Your task to perform on an android device: See recent photos Image 0: 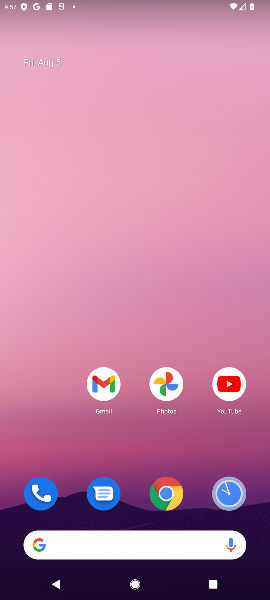
Step 0: drag from (137, 470) to (131, 22)
Your task to perform on an android device: See recent photos Image 1: 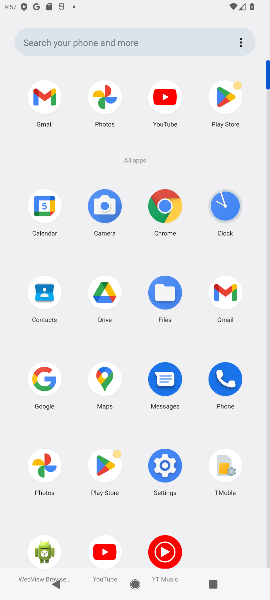
Step 1: click (41, 456)
Your task to perform on an android device: See recent photos Image 2: 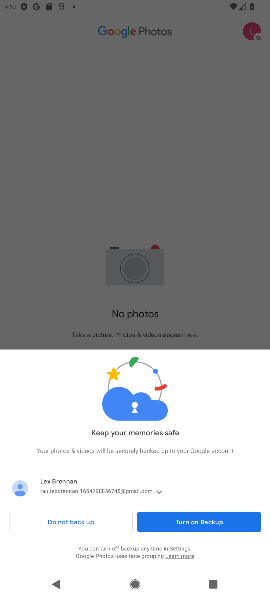
Step 2: click (196, 518)
Your task to perform on an android device: See recent photos Image 3: 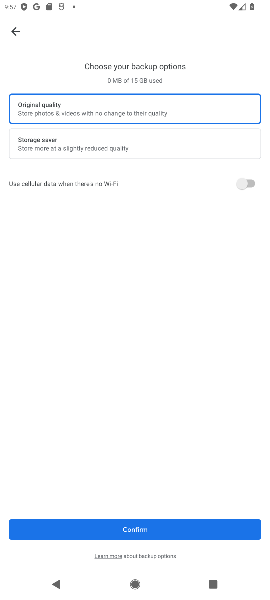
Step 3: click (152, 523)
Your task to perform on an android device: See recent photos Image 4: 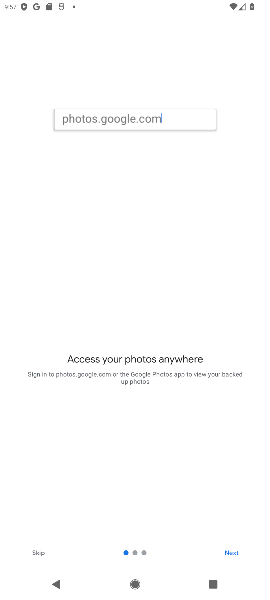
Step 4: click (38, 552)
Your task to perform on an android device: See recent photos Image 5: 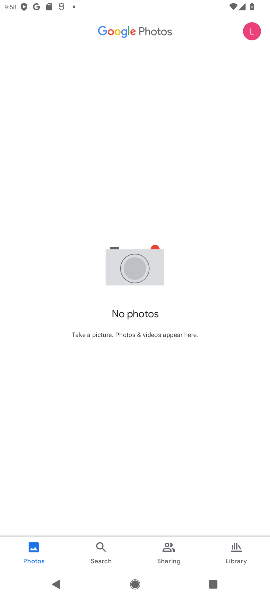
Step 5: task complete